Your task to perform on an android device: turn off airplane mode Image 0: 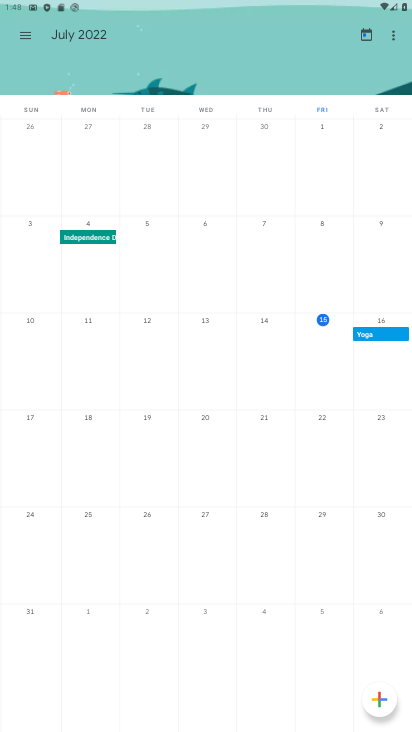
Step 0: press home button
Your task to perform on an android device: turn off airplane mode Image 1: 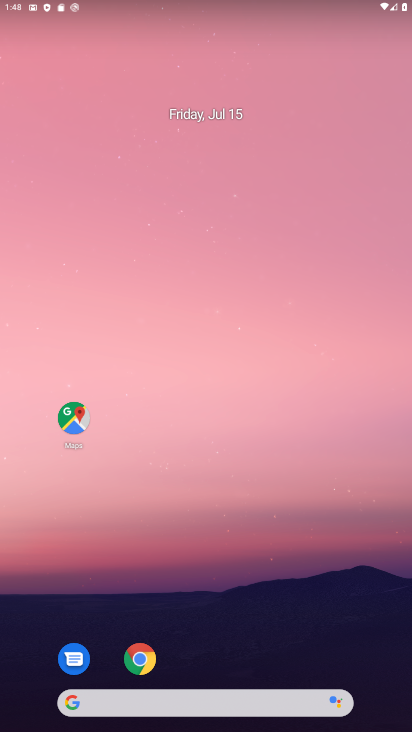
Step 1: drag from (238, 568) to (211, 97)
Your task to perform on an android device: turn off airplane mode Image 2: 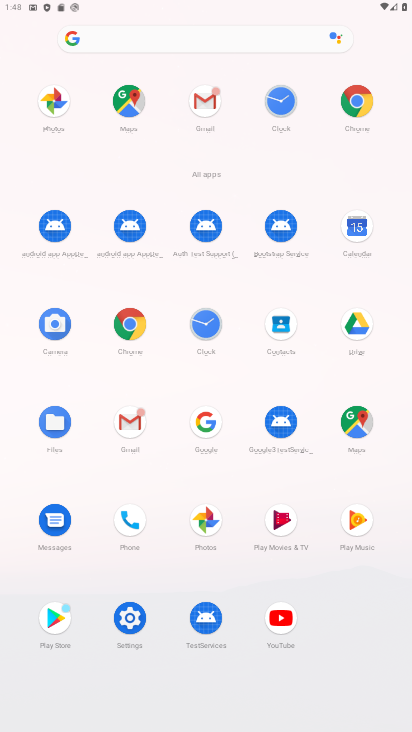
Step 2: click (118, 612)
Your task to perform on an android device: turn off airplane mode Image 3: 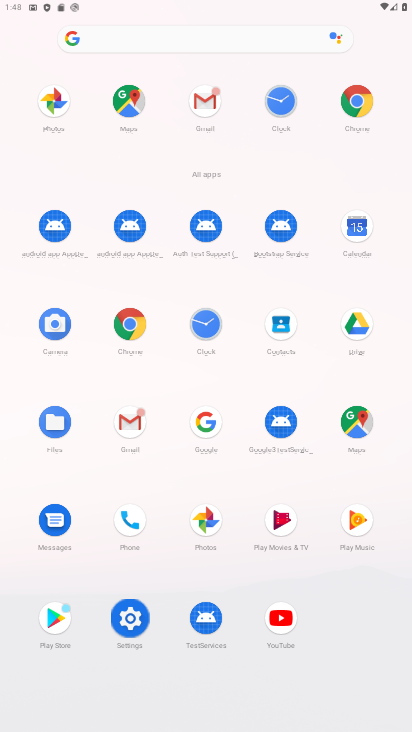
Step 3: click (127, 607)
Your task to perform on an android device: turn off airplane mode Image 4: 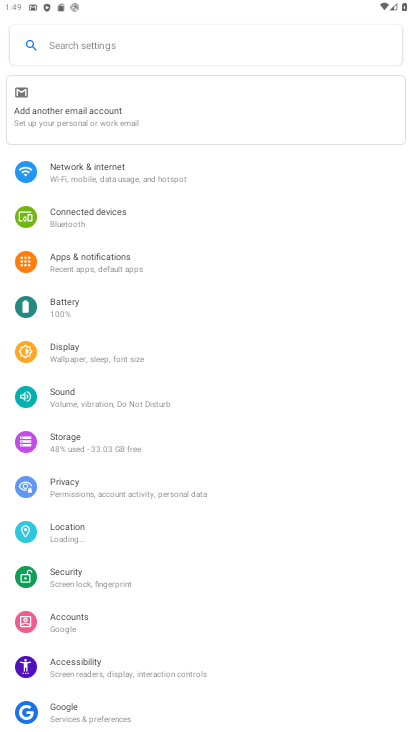
Step 4: click (93, 187)
Your task to perform on an android device: turn off airplane mode Image 5: 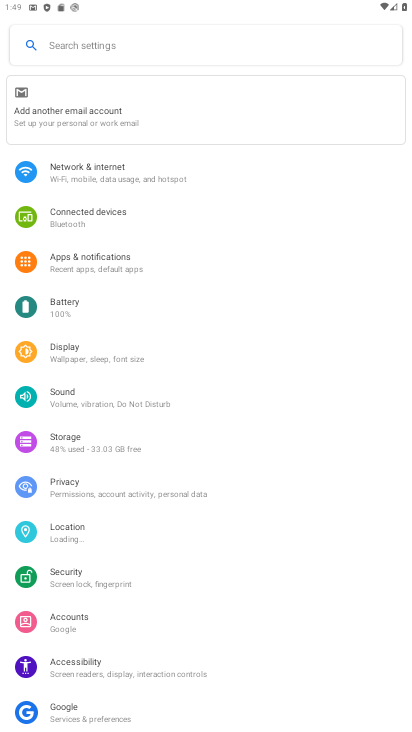
Step 5: click (102, 176)
Your task to perform on an android device: turn off airplane mode Image 6: 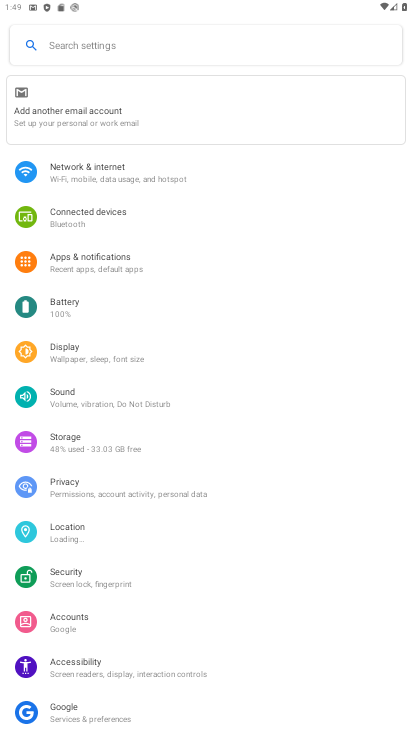
Step 6: click (102, 176)
Your task to perform on an android device: turn off airplane mode Image 7: 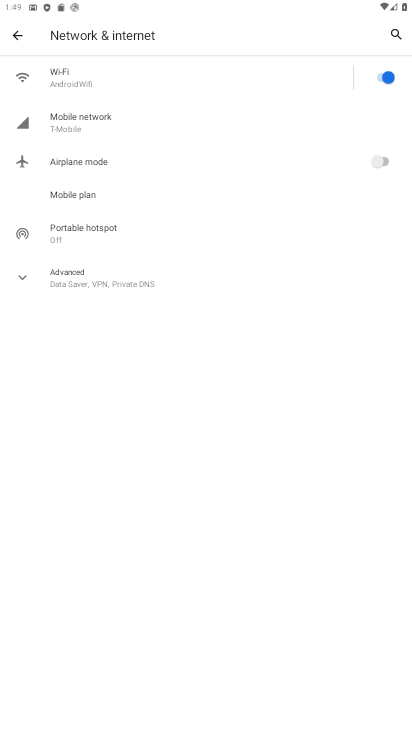
Step 7: task complete